Your task to perform on an android device: open chrome privacy settings Image 0: 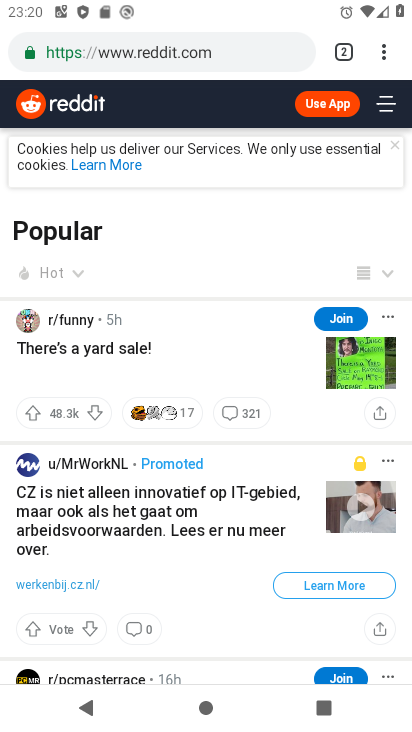
Step 0: press home button
Your task to perform on an android device: open chrome privacy settings Image 1: 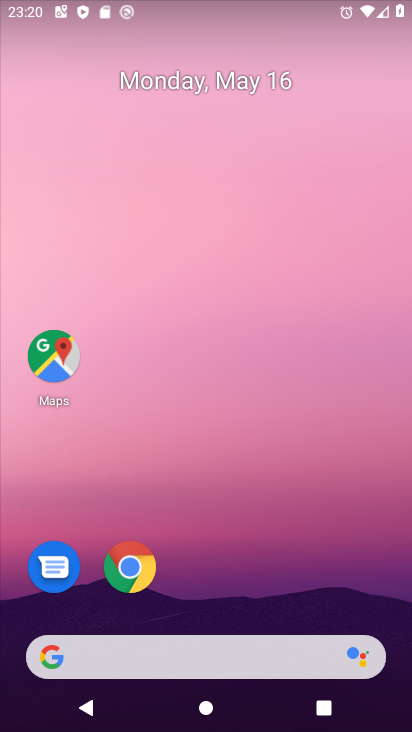
Step 1: click (247, 548)
Your task to perform on an android device: open chrome privacy settings Image 2: 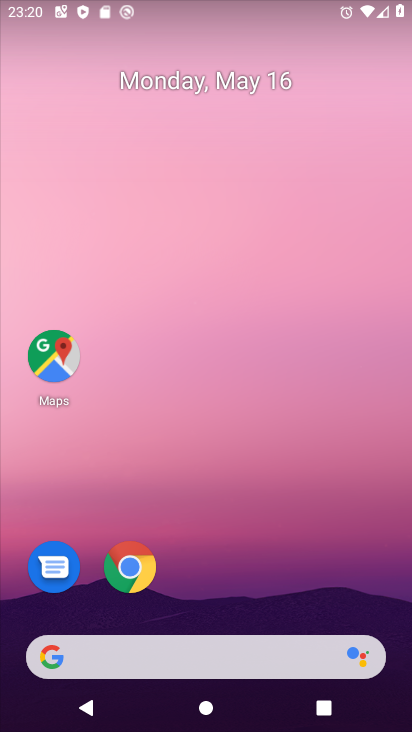
Step 2: click (133, 566)
Your task to perform on an android device: open chrome privacy settings Image 3: 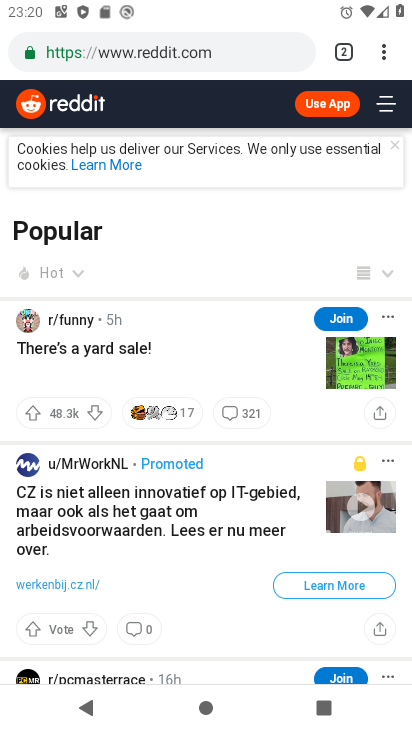
Step 3: click (384, 46)
Your task to perform on an android device: open chrome privacy settings Image 4: 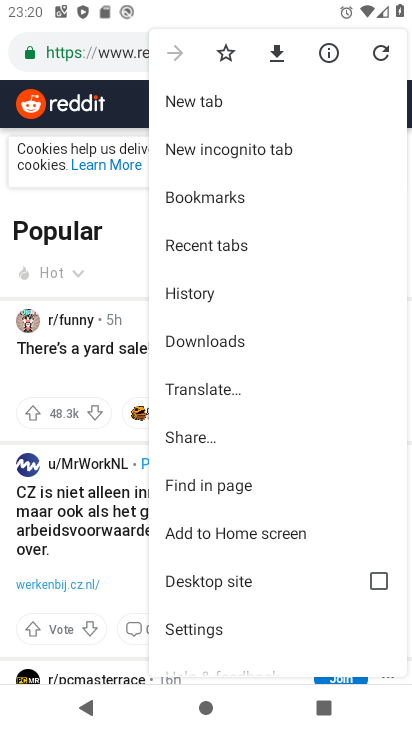
Step 4: click (204, 630)
Your task to perform on an android device: open chrome privacy settings Image 5: 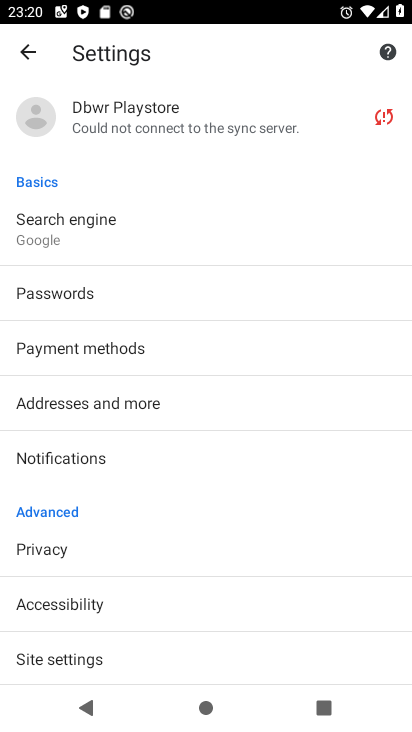
Step 5: click (40, 550)
Your task to perform on an android device: open chrome privacy settings Image 6: 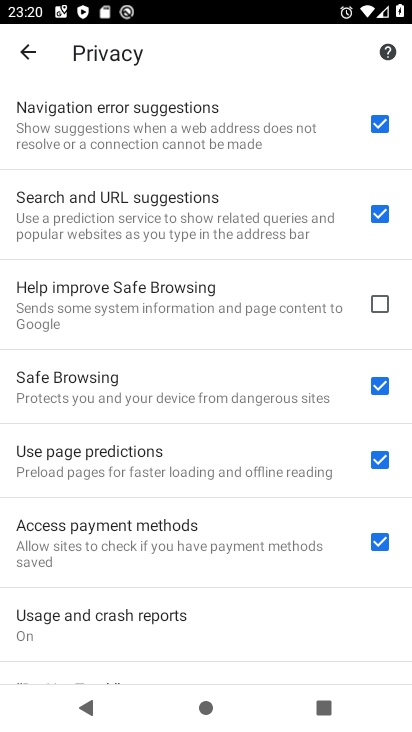
Step 6: task complete